Your task to perform on an android device: turn on javascript in the chrome app Image 0: 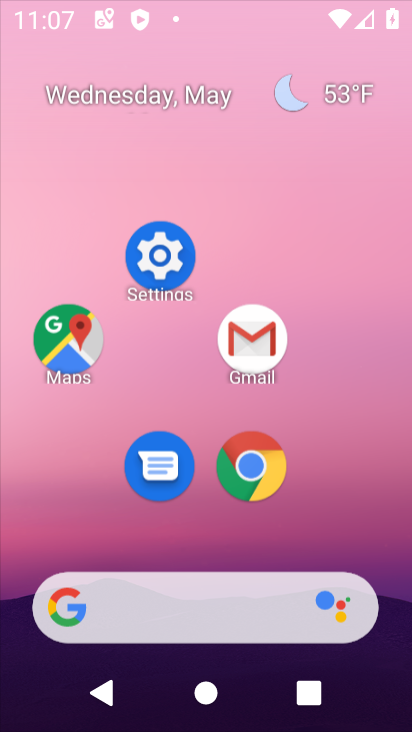
Step 0: drag from (233, 377) to (256, 207)
Your task to perform on an android device: turn on javascript in the chrome app Image 1: 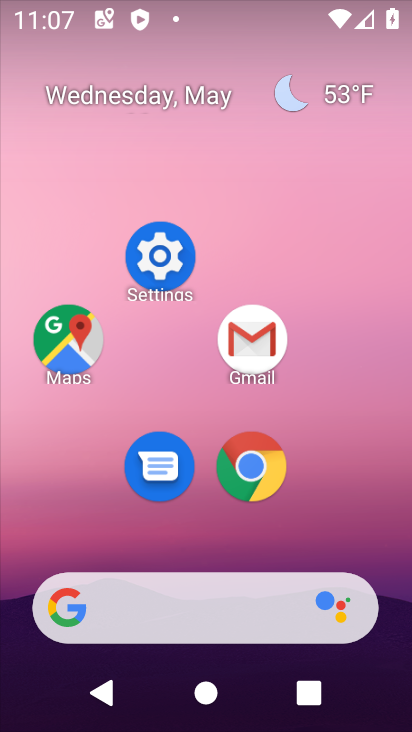
Step 1: drag from (201, 584) to (236, 71)
Your task to perform on an android device: turn on javascript in the chrome app Image 2: 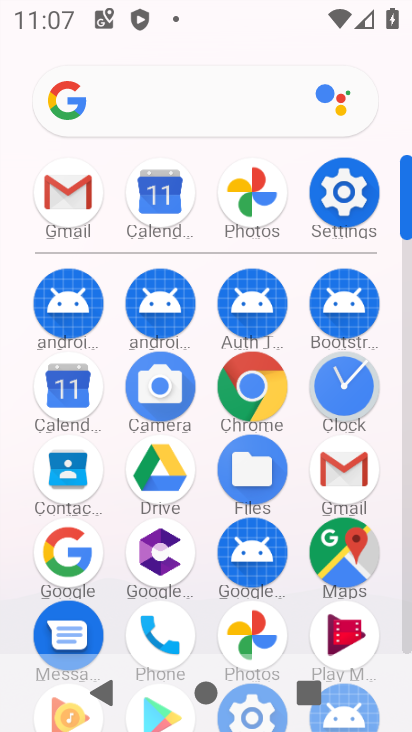
Step 2: click (243, 390)
Your task to perform on an android device: turn on javascript in the chrome app Image 3: 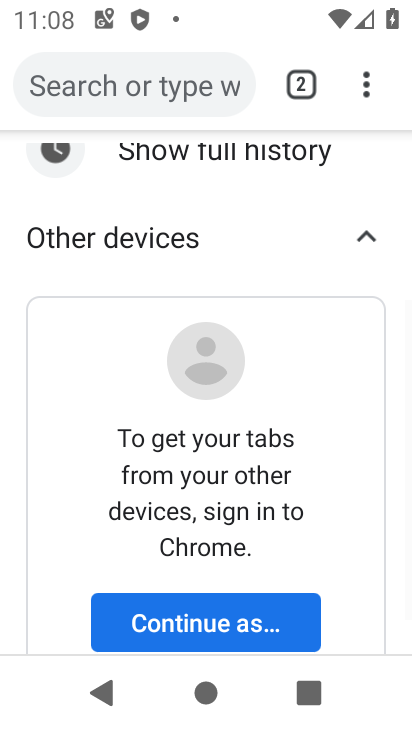
Step 3: drag from (223, 507) to (279, 237)
Your task to perform on an android device: turn on javascript in the chrome app Image 4: 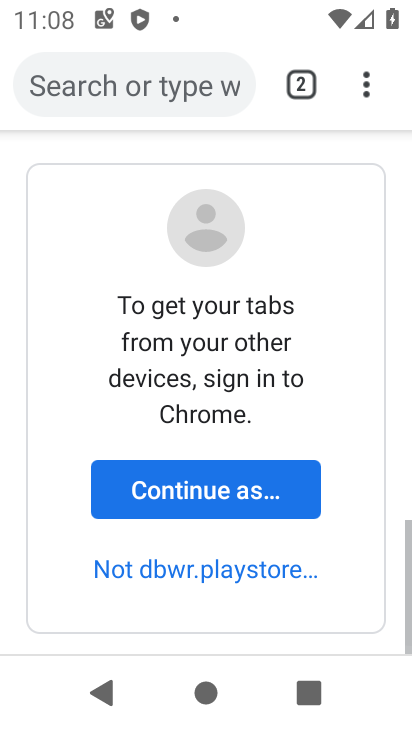
Step 4: drag from (288, 196) to (286, 643)
Your task to perform on an android device: turn on javascript in the chrome app Image 5: 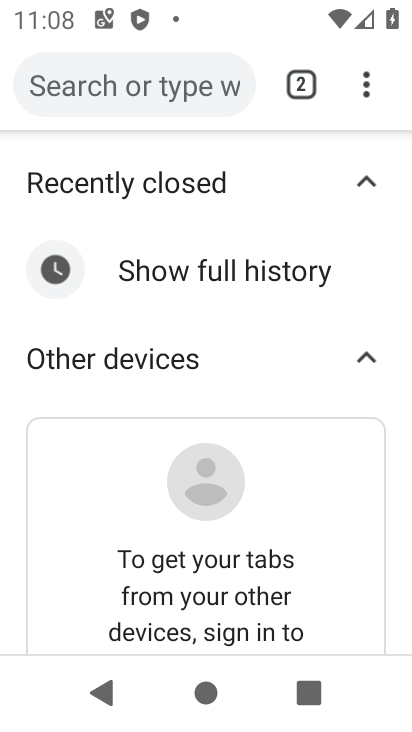
Step 5: drag from (364, 82) to (147, 518)
Your task to perform on an android device: turn on javascript in the chrome app Image 6: 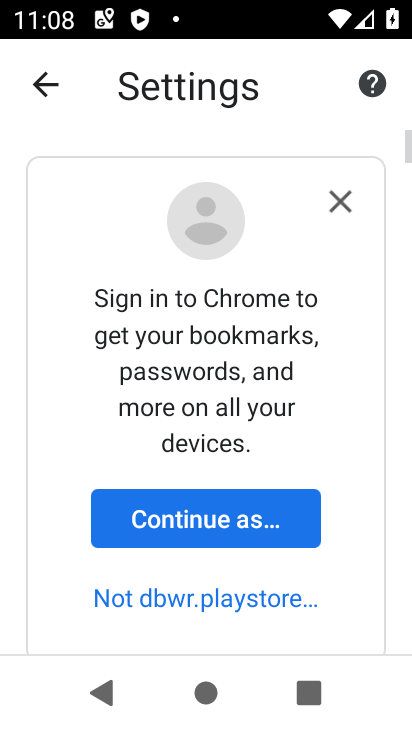
Step 6: drag from (223, 611) to (299, 196)
Your task to perform on an android device: turn on javascript in the chrome app Image 7: 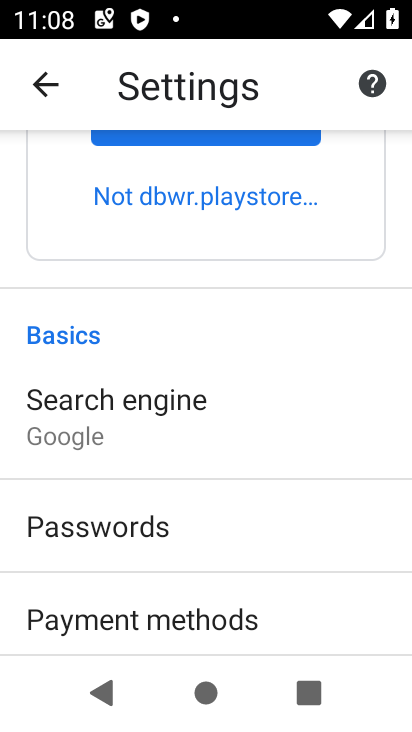
Step 7: drag from (218, 554) to (311, 22)
Your task to perform on an android device: turn on javascript in the chrome app Image 8: 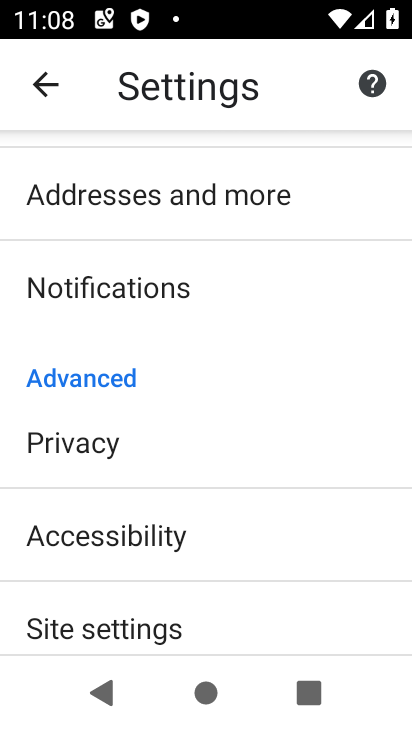
Step 8: drag from (192, 582) to (247, 258)
Your task to perform on an android device: turn on javascript in the chrome app Image 9: 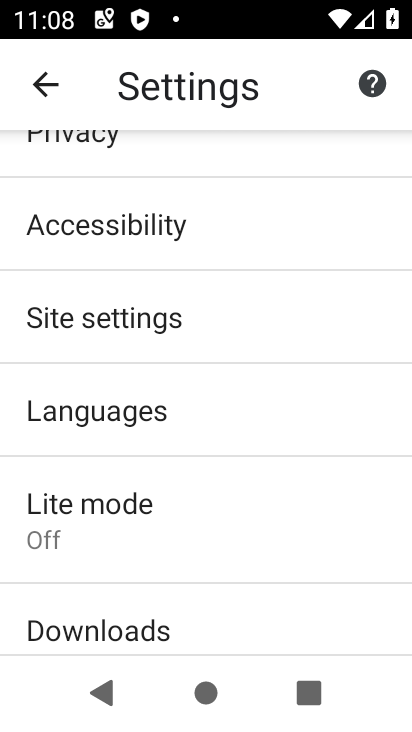
Step 9: click (139, 310)
Your task to perform on an android device: turn on javascript in the chrome app Image 10: 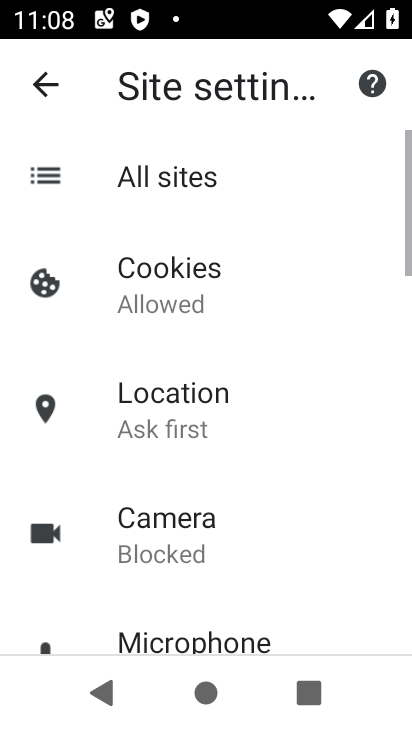
Step 10: drag from (236, 501) to (258, 239)
Your task to perform on an android device: turn on javascript in the chrome app Image 11: 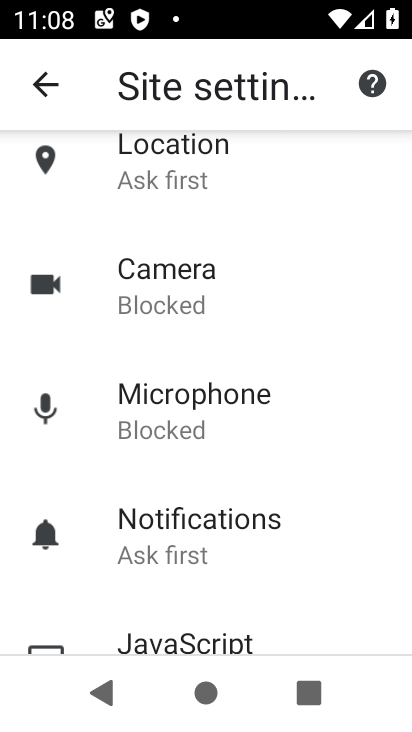
Step 11: click (182, 653)
Your task to perform on an android device: turn on javascript in the chrome app Image 12: 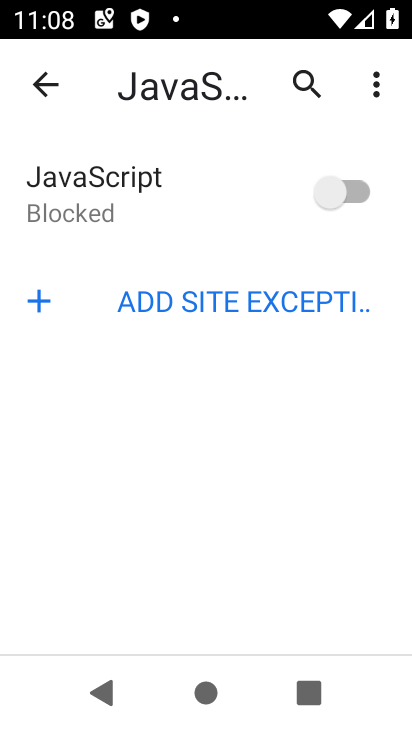
Step 12: drag from (231, 492) to (258, 108)
Your task to perform on an android device: turn on javascript in the chrome app Image 13: 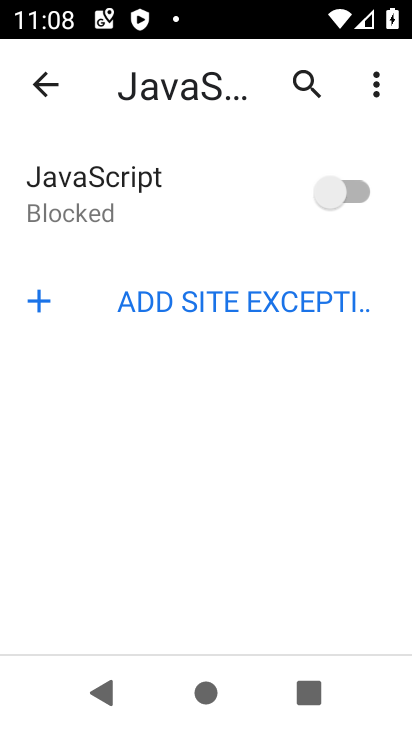
Step 13: click (323, 201)
Your task to perform on an android device: turn on javascript in the chrome app Image 14: 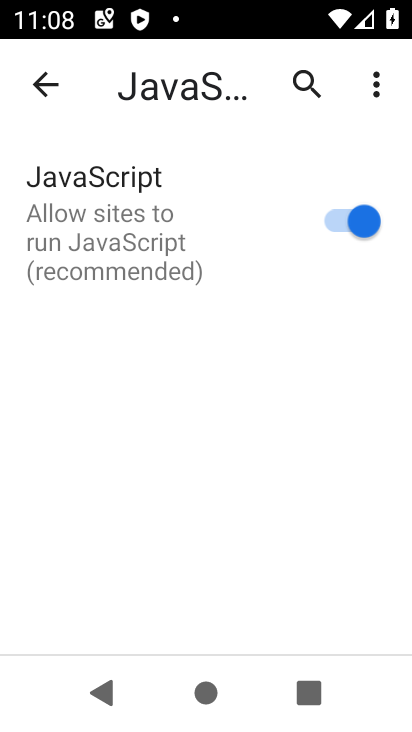
Step 14: task complete